Your task to perform on an android device: change your default location settings in chrome Image 0: 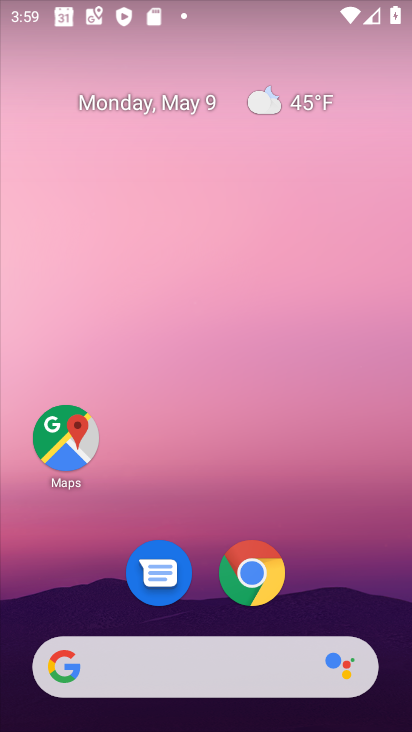
Step 0: click (247, 573)
Your task to perform on an android device: change your default location settings in chrome Image 1: 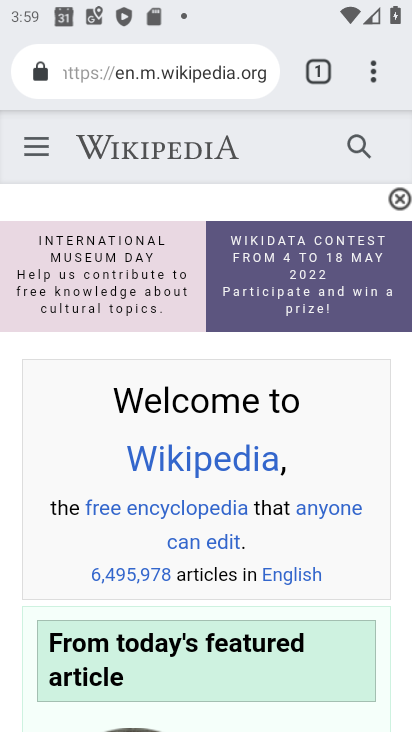
Step 1: drag from (371, 74) to (111, 578)
Your task to perform on an android device: change your default location settings in chrome Image 2: 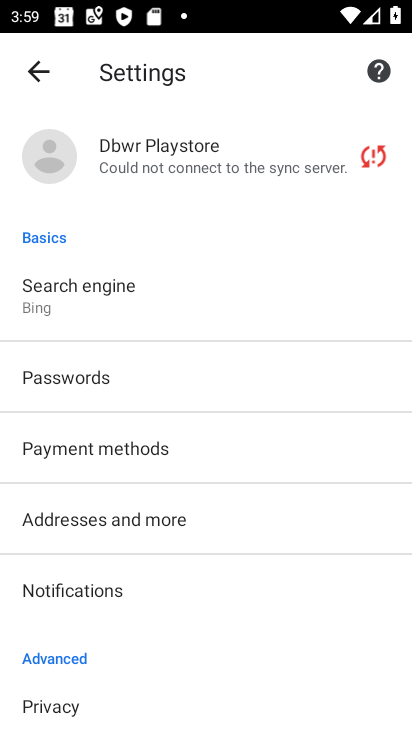
Step 2: drag from (230, 580) to (257, 230)
Your task to perform on an android device: change your default location settings in chrome Image 3: 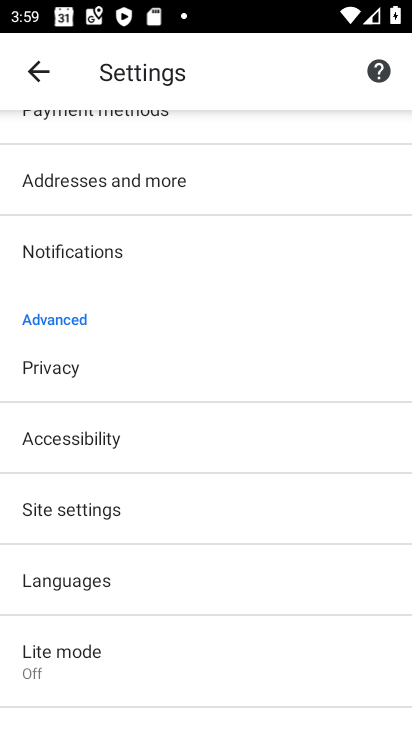
Step 3: click (67, 506)
Your task to perform on an android device: change your default location settings in chrome Image 4: 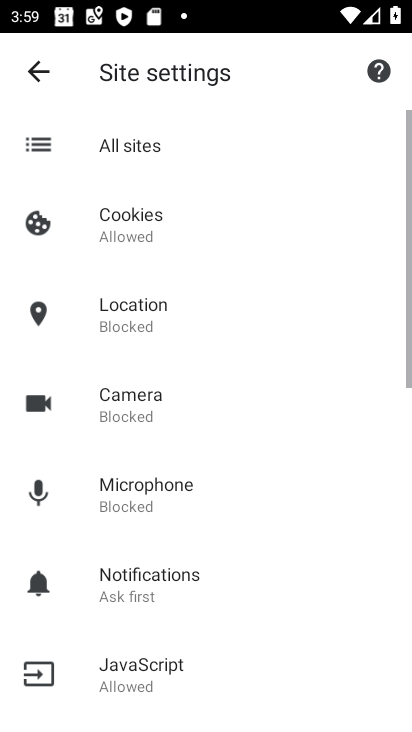
Step 4: click (113, 319)
Your task to perform on an android device: change your default location settings in chrome Image 5: 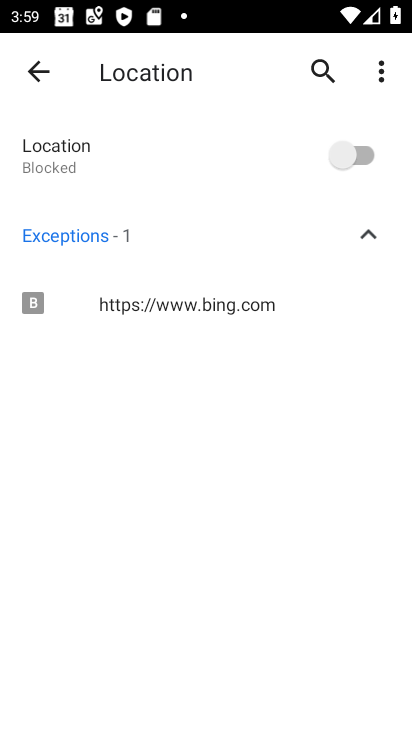
Step 5: click (349, 170)
Your task to perform on an android device: change your default location settings in chrome Image 6: 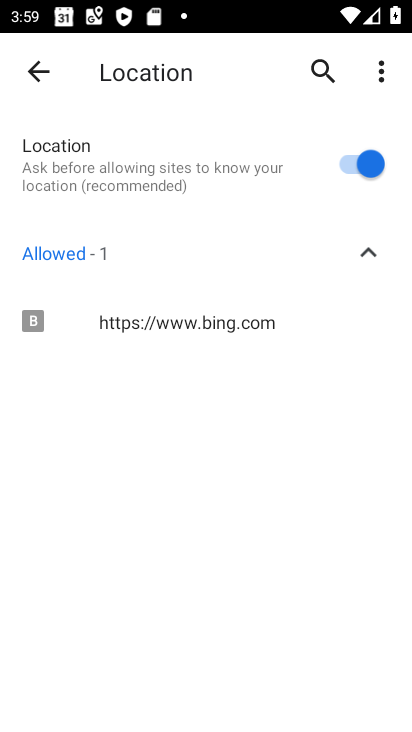
Step 6: task complete